Your task to perform on an android device: Search for Italian restaurants on Maps Image 0: 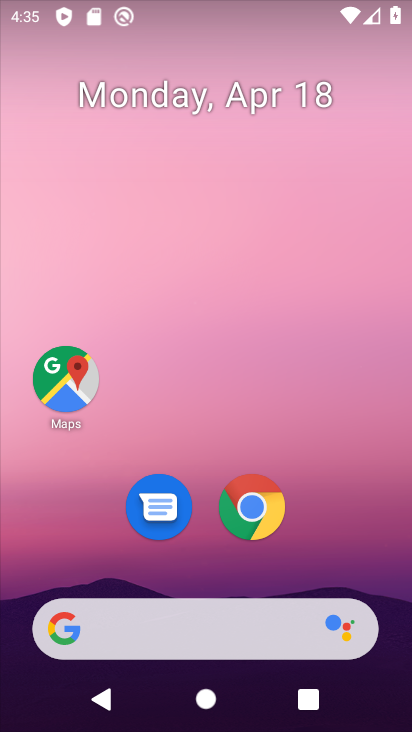
Step 0: drag from (267, 502) to (355, 5)
Your task to perform on an android device: Search for Italian restaurants on Maps Image 1: 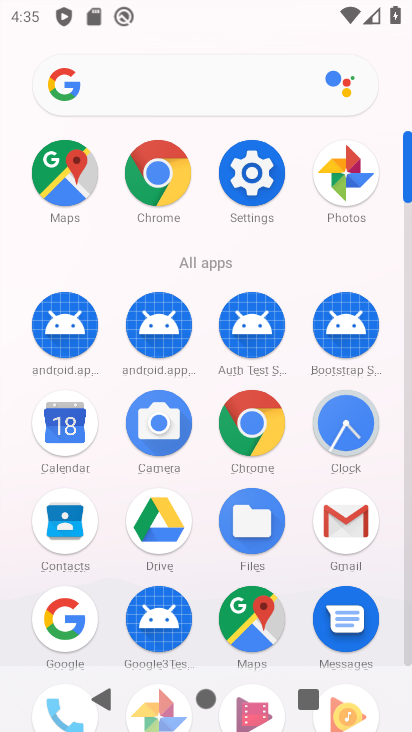
Step 1: click (263, 620)
Your task to perform on an android device: Search for Italian restaurants on Maps Image 2: 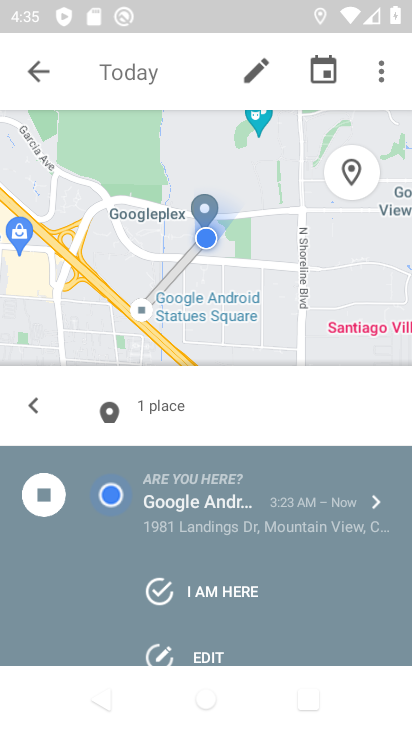
Step 2: press back button
Your task to perform on an android device: Search for Italian restaurants on Maps Image 3: 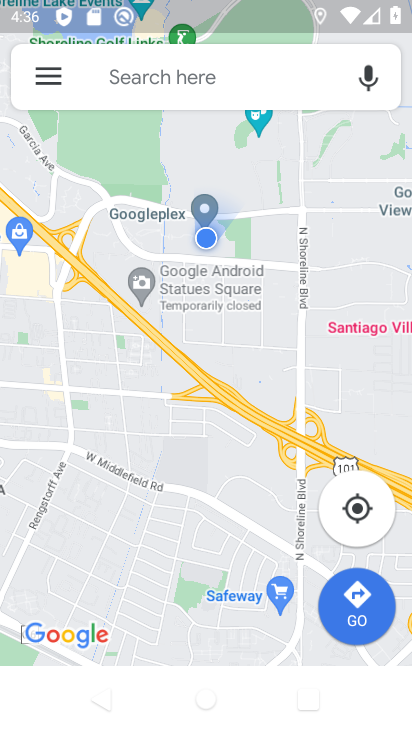
Step 3: click (236, 59)
Your task to perform on an android device: Search for Italian restaurants on Maps Image 4: 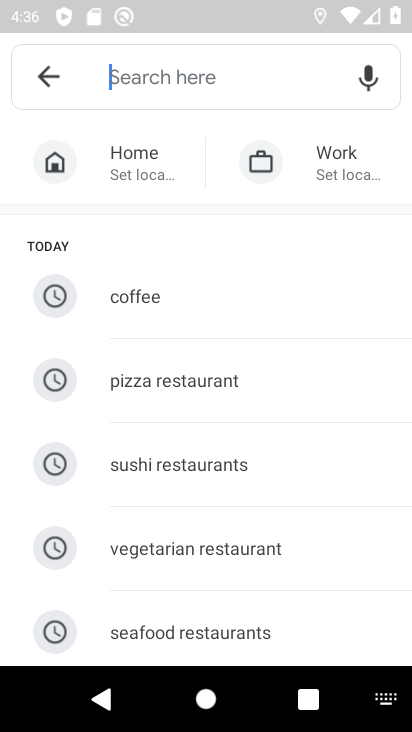
Step 4: type "italian restaurant"
Your task to perform on an android device: Search for Italian restaurants on Maps Image 5: 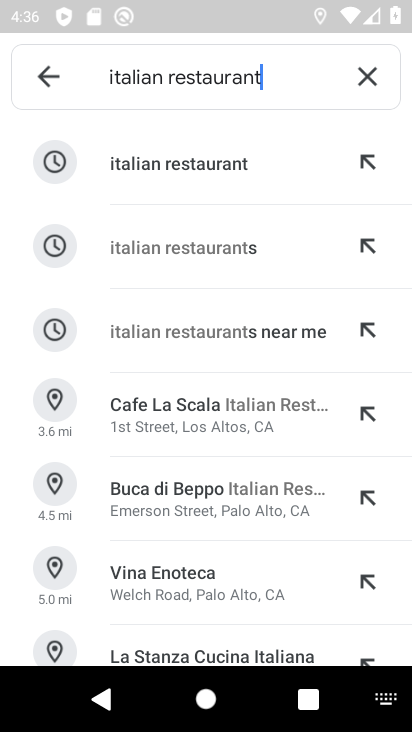
Step 5: click (218, 163)
Your task to perform on an android device: Search for Italian restaurants on Maps Image 6: 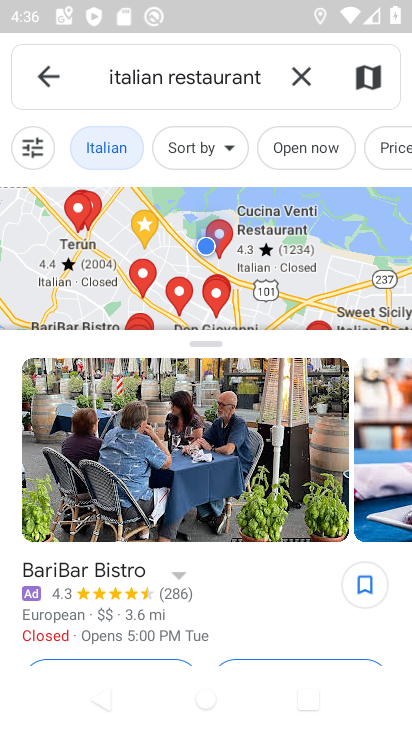
Step 6: task complete